Your task to perform on an android device: turn smart compose on in the gmail app Image 0: 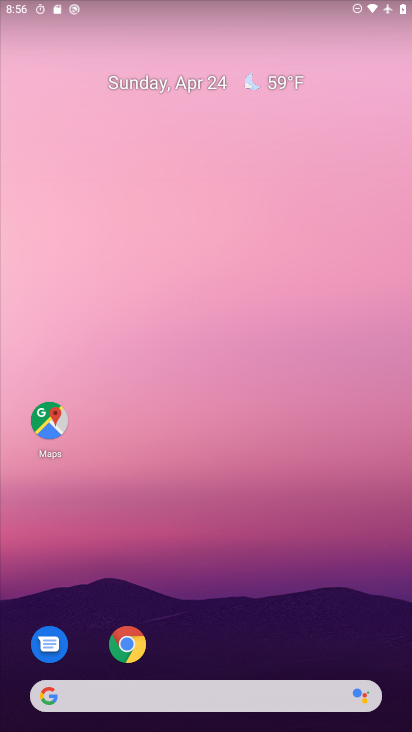
Step 0: drag from (215, 664) to (206, 52)
Your task to perform on an android device: turn smart compose on in the gmail app Image 1: 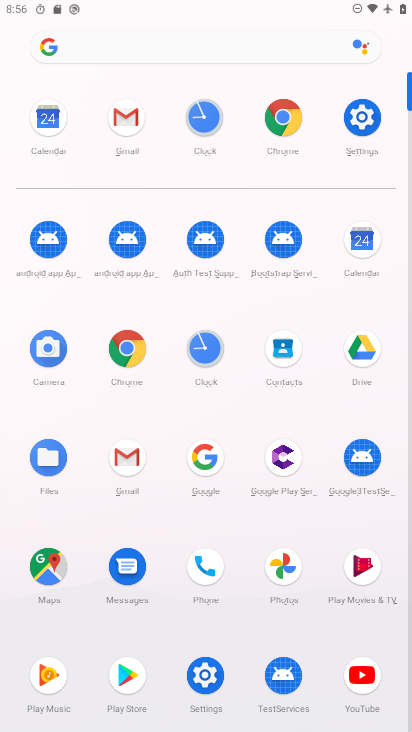
Step 1: click (122, 446)
Your task to perform on an android device: turn smart compose on in the gmail app Image 2: 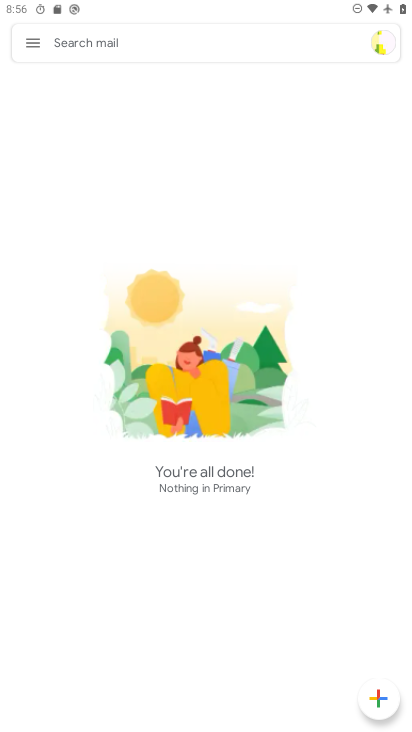
Step 2: click (33, 39)
Your task to perform on an android device: turn smart compose on in the gmail app Image 3: 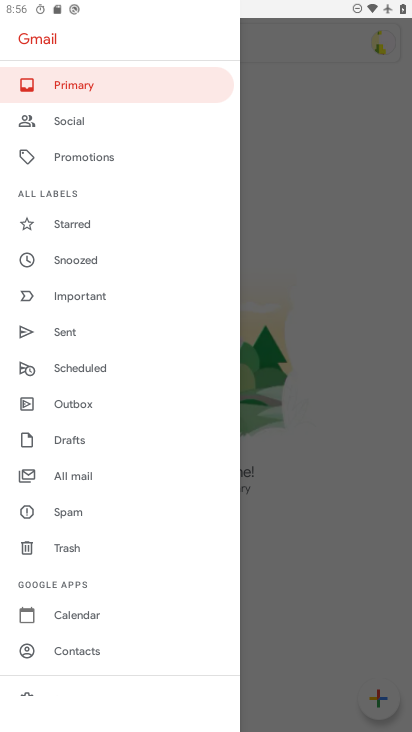
Step 3: drag from (102, 650) to (98, 184)
Your task to perform on an android device: turn smart compose on in the gmail app Image 4: 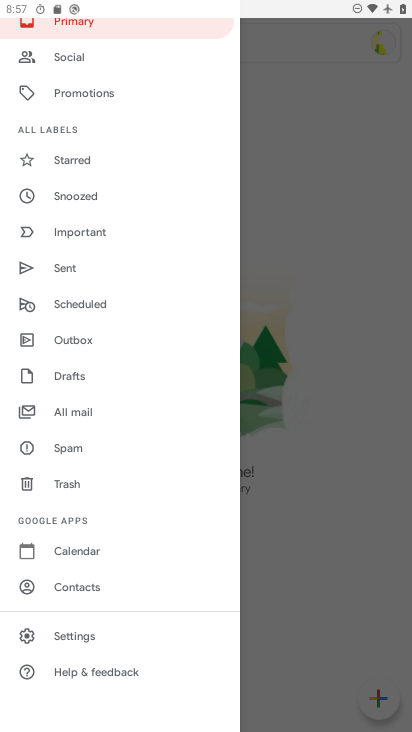
Step 4: click (102, 629)
Your task to perform on an android device: turn smart compose on in the gmail app Image 5: 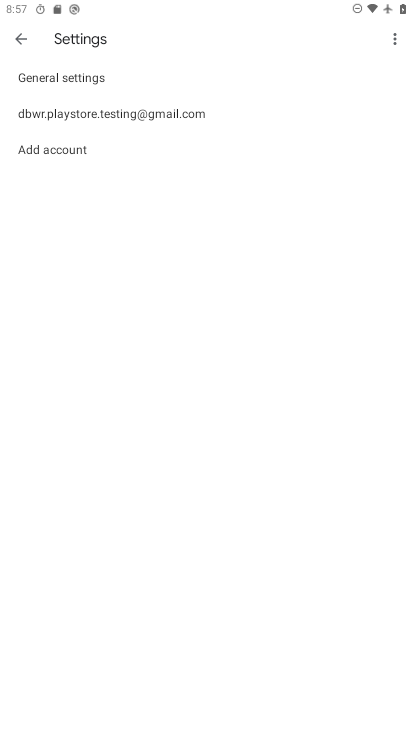
Step 5: click (88, 114)
Your task to perform on an android device: turn smart compose on in the gmail app Image 6: 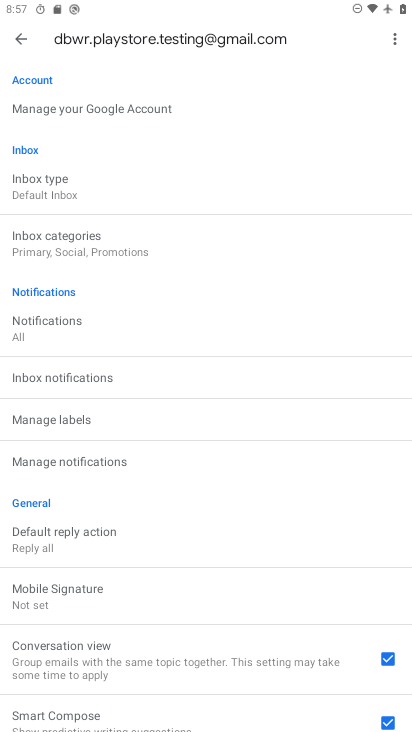
Step 6: drag from (157, 658) to (157, 291)
Your task to perform on an android device: turn smart compose on in the gmail app Image 7: 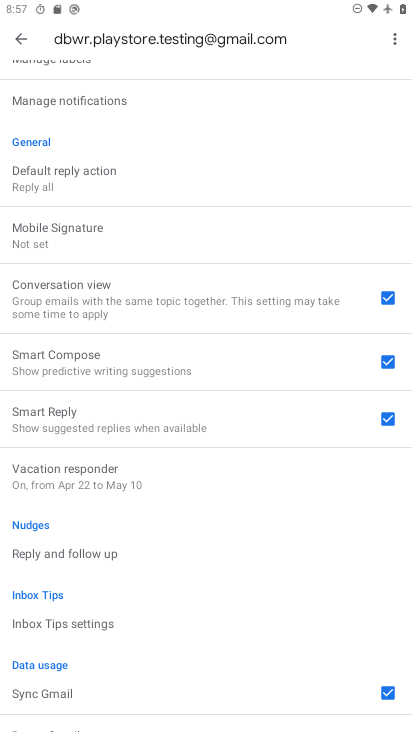
Step 7: click (108, 357)
Your task to perform on an android device: turn smart compose on in the gmail app Image 8: 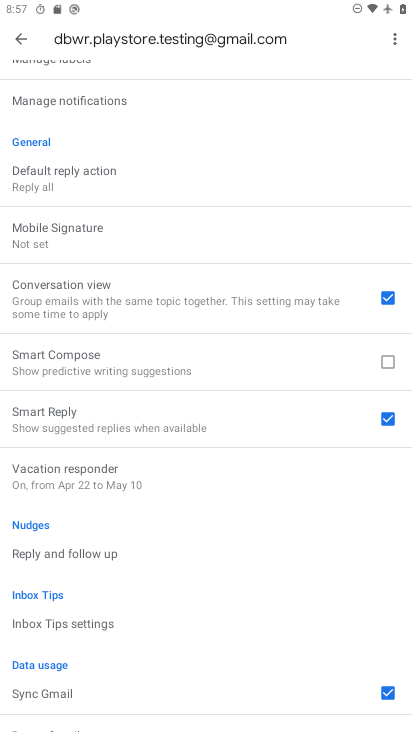
Step 8: click (381, 356)
Your task to perform on an android device: turn smart compose on in the gmail app Image 9: 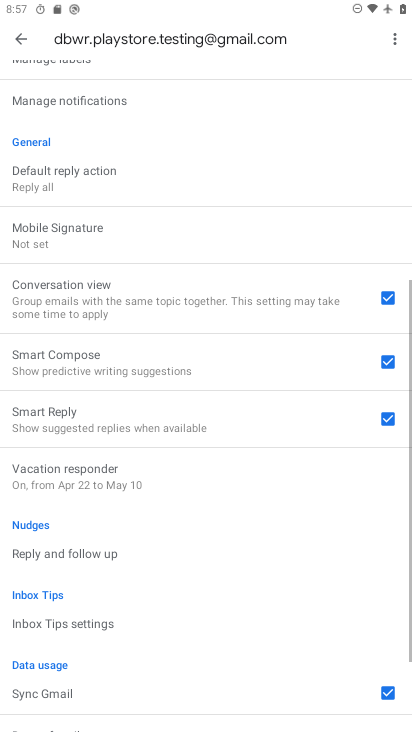
Step 9: task complete